Your task to perform on an android device: toggle pop-ups in chrome Image 0: 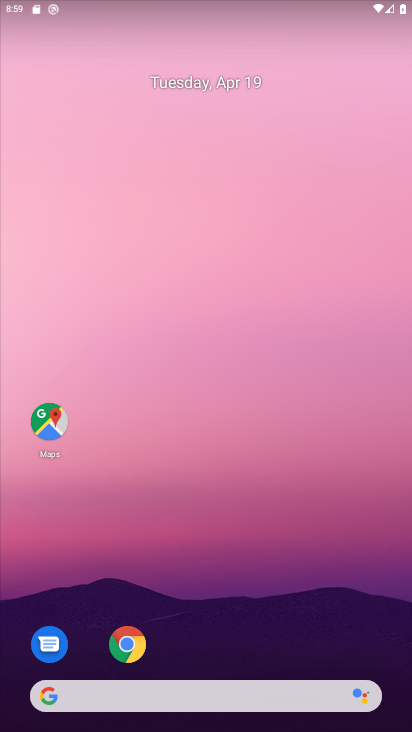
Step 0: drag from (263, 600) to (289, 143)
Your task to perform on an android device: toggle pop-ups in chrome Image 1: 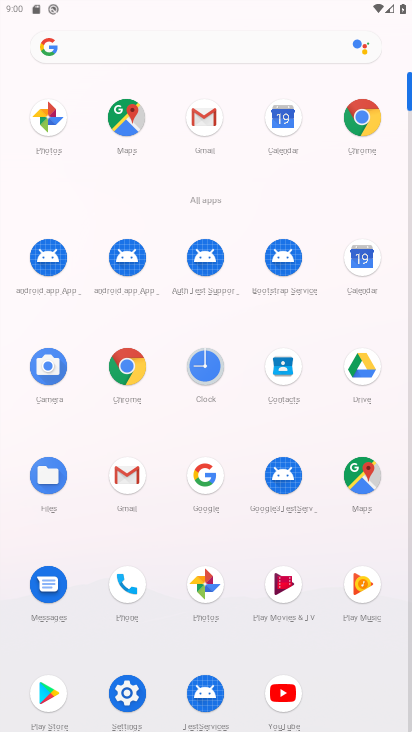
Step 1: click (133, 360)
Your task to perform on an android device: toggle pop-ups in chrome Image 2: 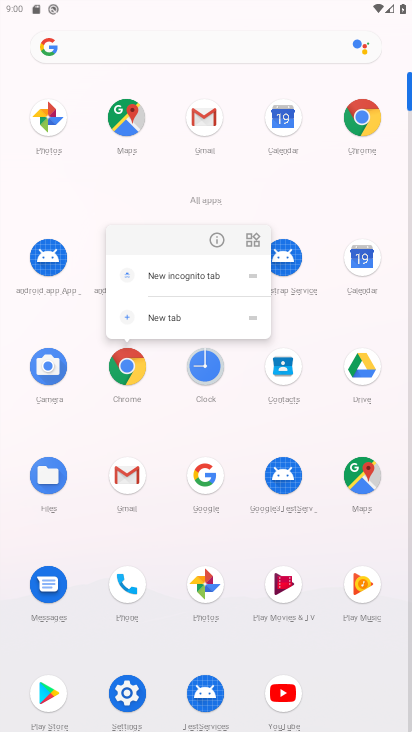
Step 2: click (128, 358)
Your task to perform on an android device: toggle pop-ups in chrome Image 3: 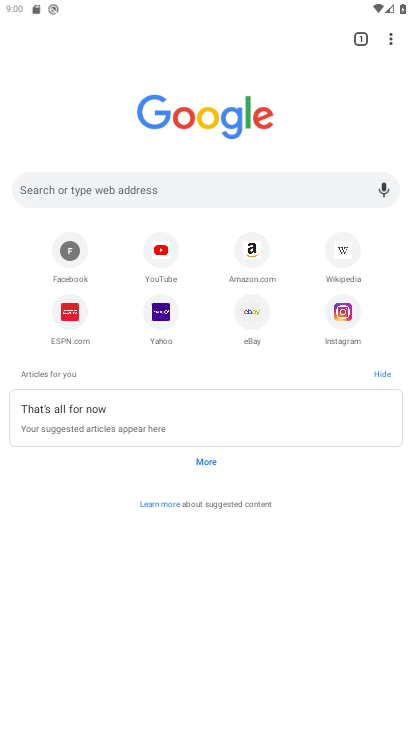
Step 3: click (388, 34)
Your task to perform on an android device: toggle pop-ups in chrome Image 4: 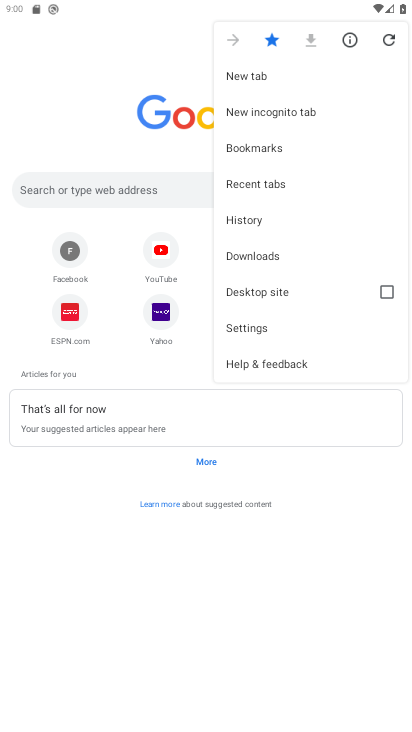
Step 4: click (268, 327)
Your task to perform on an android device: toggle pop-ups in chrome Image 5: 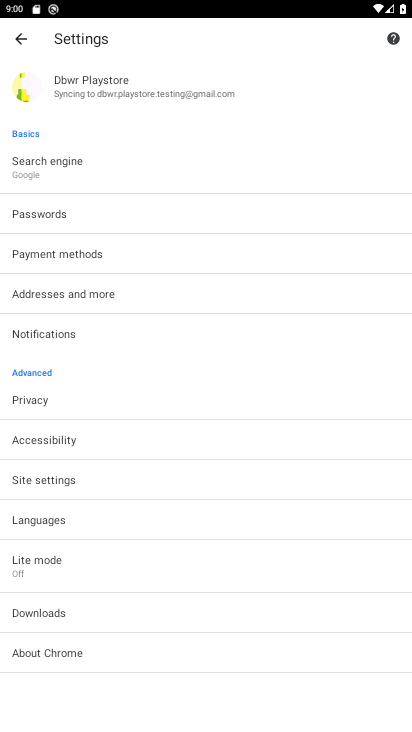
Step 5: click (126, 473)
Your task to perform on an android device: toggle pop-ups in chrome Image 6: 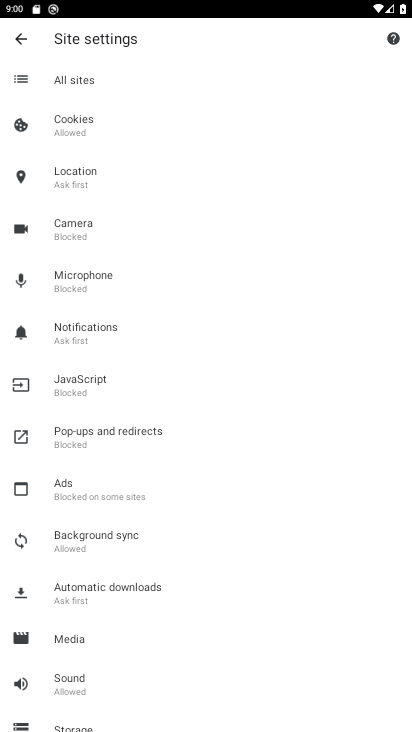
Step 6: click (124, 433)
Your task to perform on an android device: toggle pop-ups in chrome Image 7: 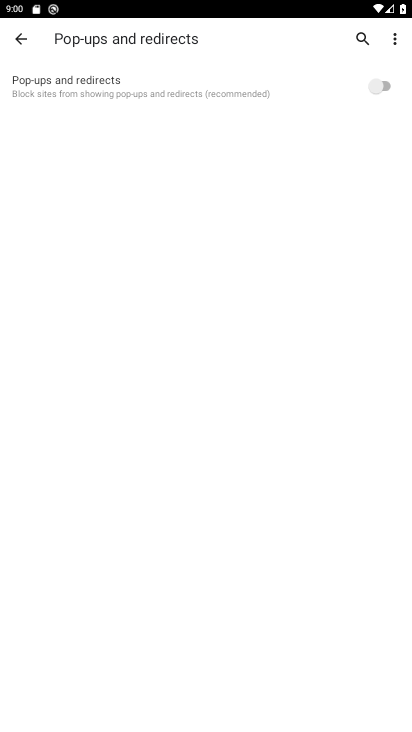
Step 7: click (374, 89)
Your task to perform on an android device: toggle pop-ups in chrome Image 8: 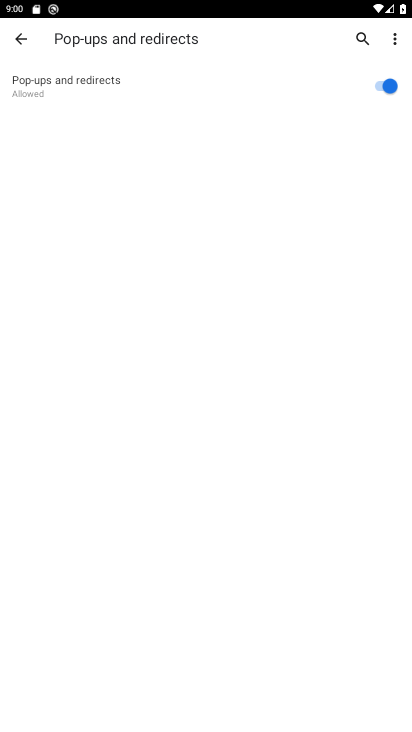
Step 8: task complete